Your task to perform on an android device: open app "Spotify" Image 0: 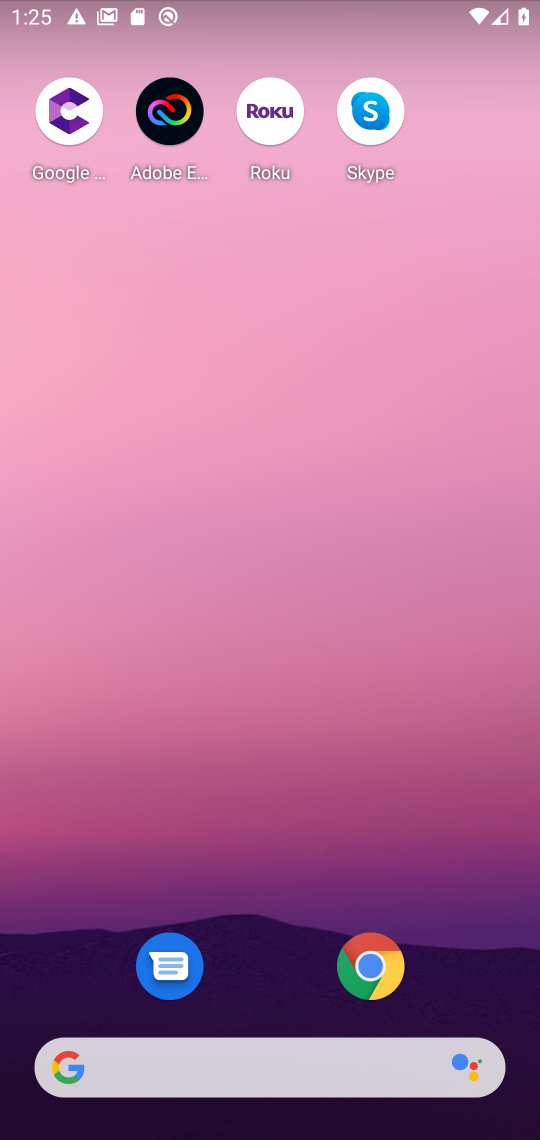
Step 0: press back button
Your task to perform on an android device: open app "Spotify" Image 1: 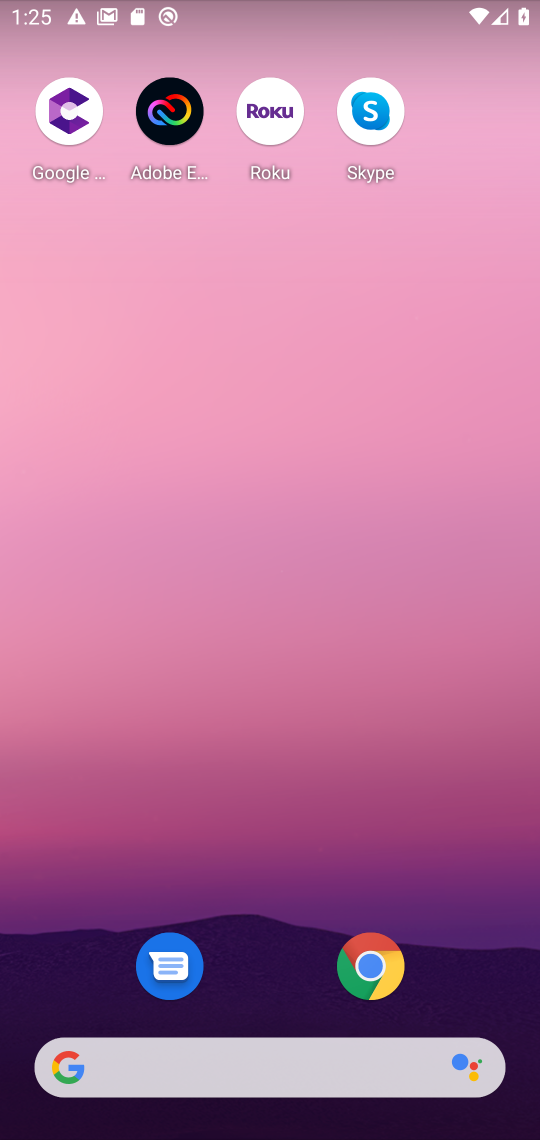
Step 1: drag from (255, 1015) to (190, 12)
Your task to perform on an android device: open app "Spotify" Image 2: 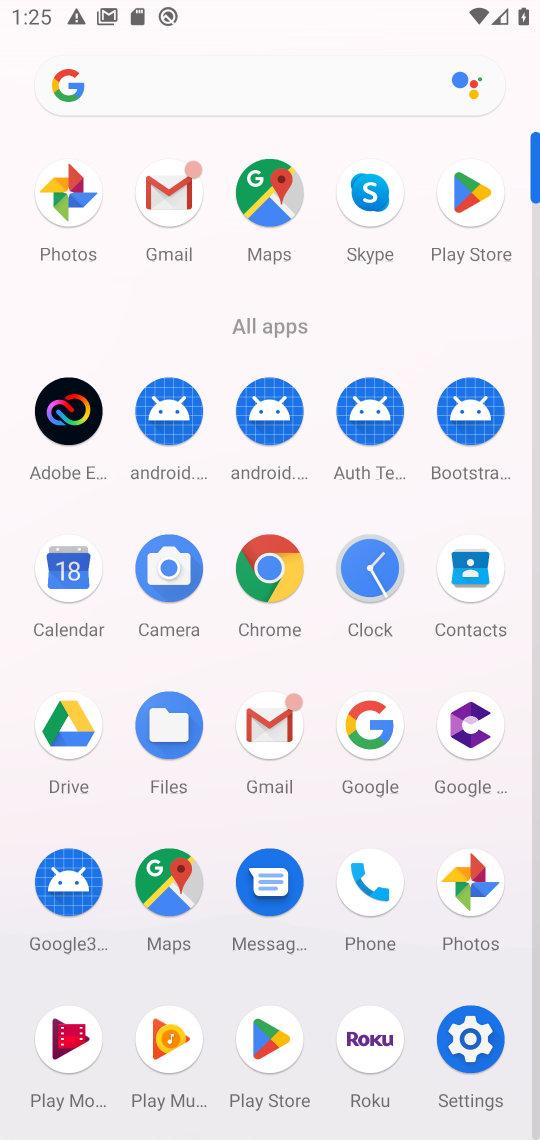
Step 2: click (453, 205)
Your task to perform on an android device: open app "Spotify" Image 3: 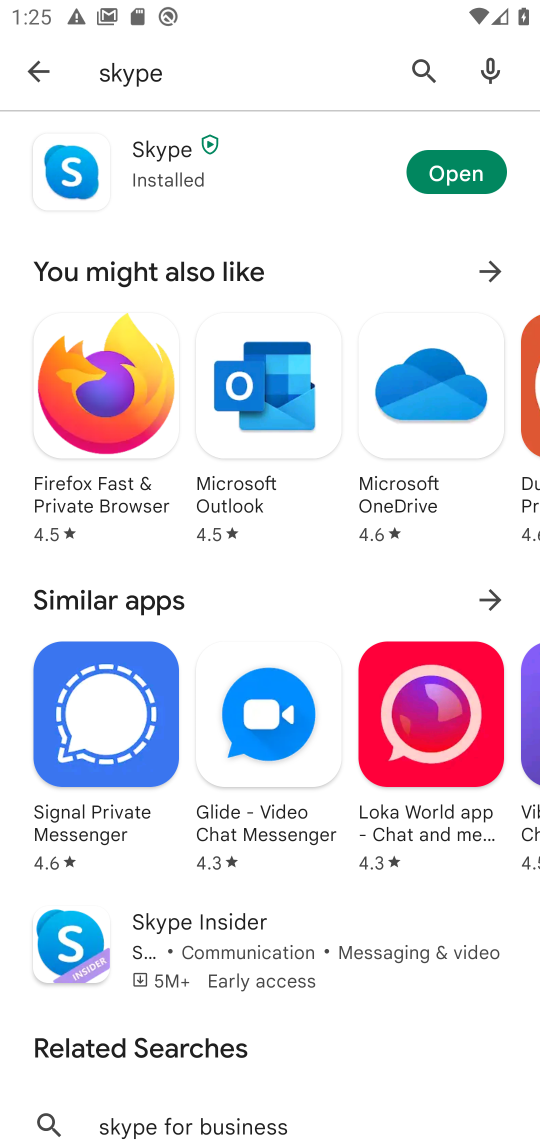
Step 3: click (81, 65)
Your task to perform on an android device: open app "Spotify" Image 4: 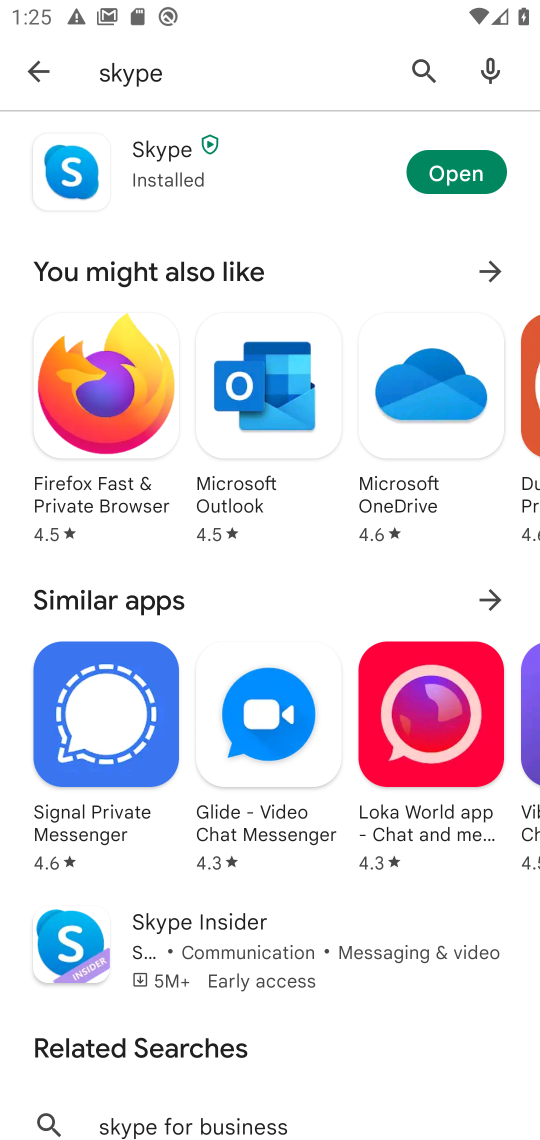
Step 4: click (28, 76)
Your task to perform on an android device: open app "Spotify" Image 5: 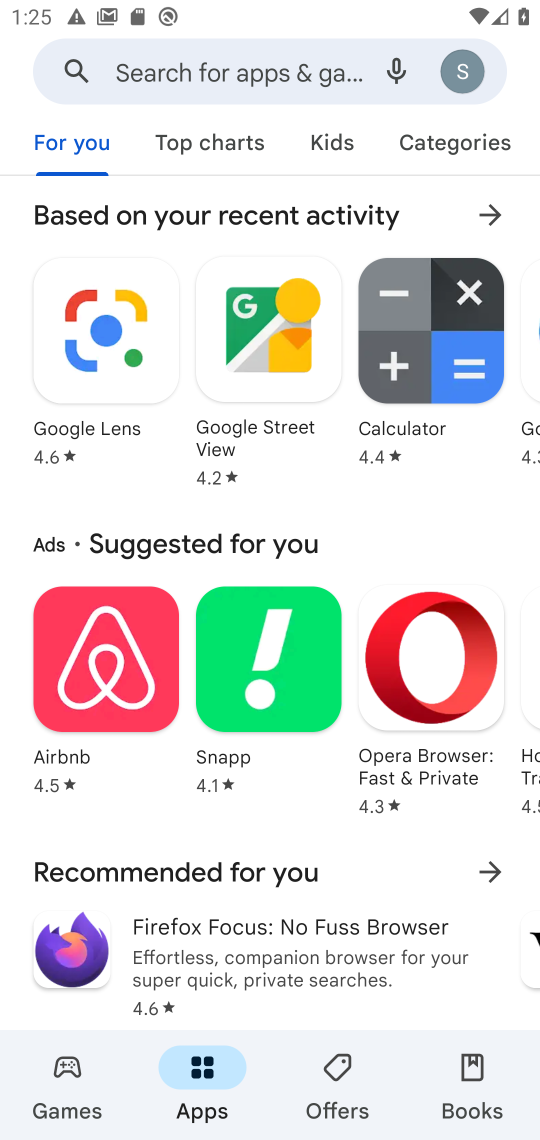
Step 5: click (152, 78)
Your task to perform on an android device: open app "Spotify" Image 6: 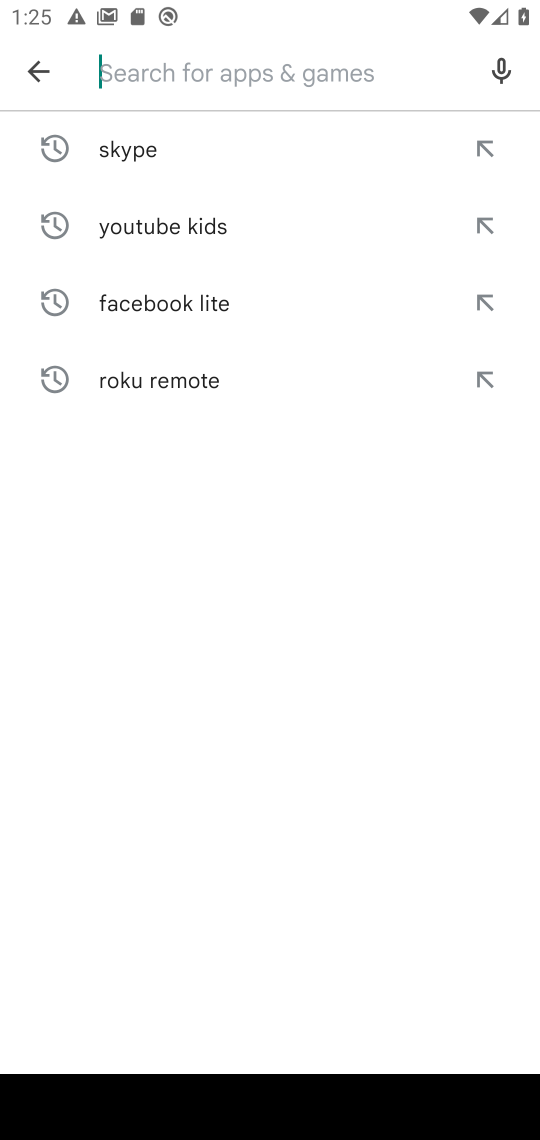
Step 6: type "Spotify"
Your task to perform on an android device: open app "Spotify" Image 7: 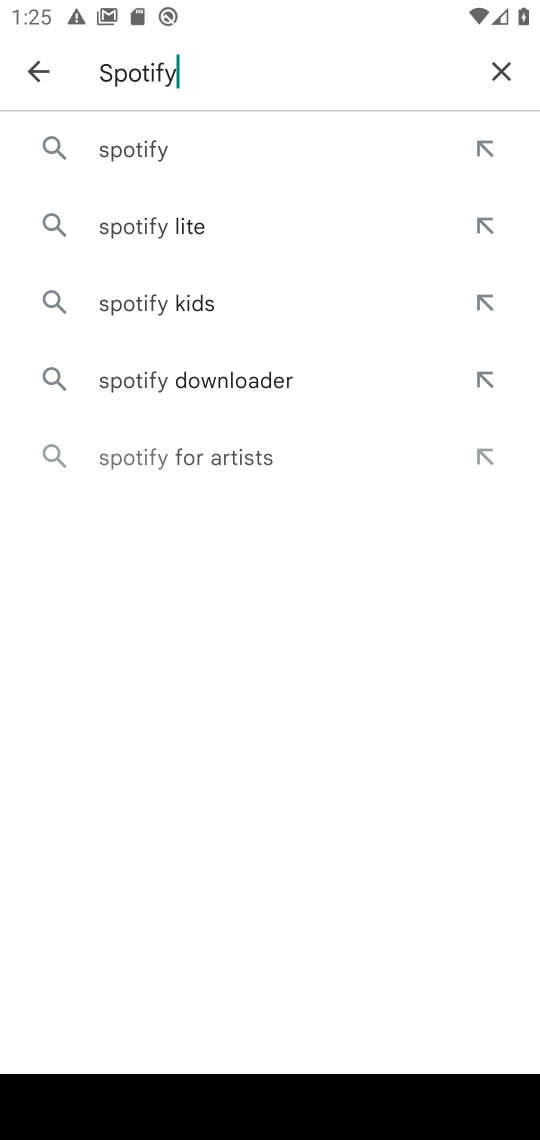
Step 7: type ""
Your task to perform on an android device: open app "Spotify" Image 8: 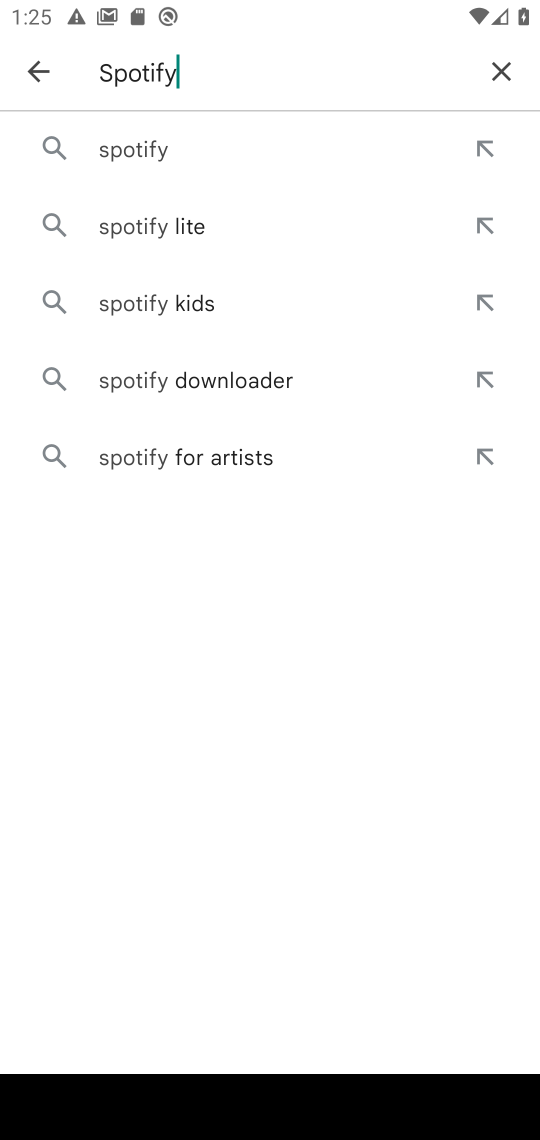
Step 8: click (170, 156)
Your task to perform on an android device: open app "Spotify" Image 9: 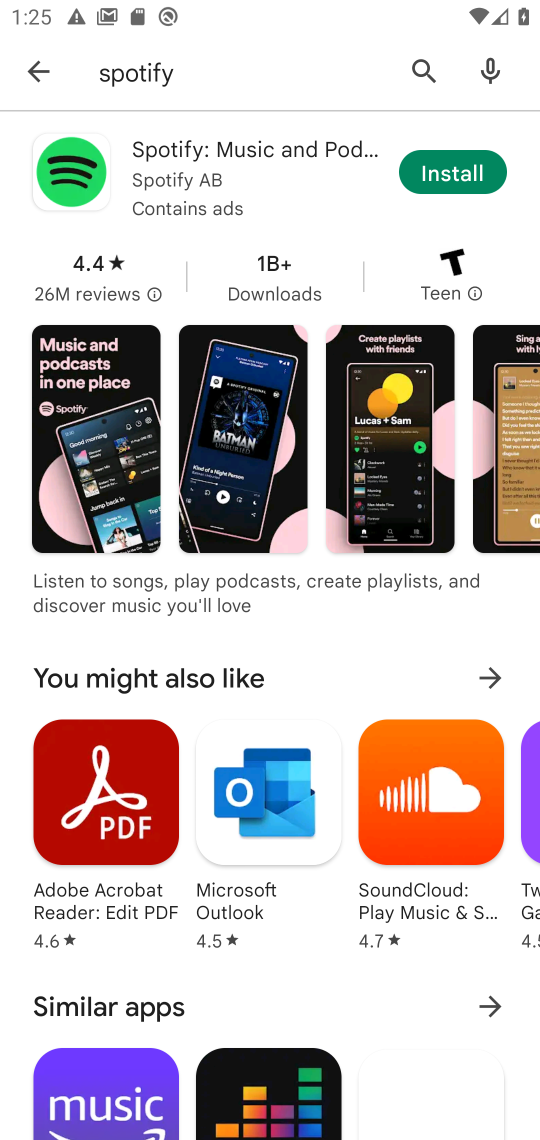
Step 9: task complete